Your task to perform on an android device: Go to notification settings Image 0: 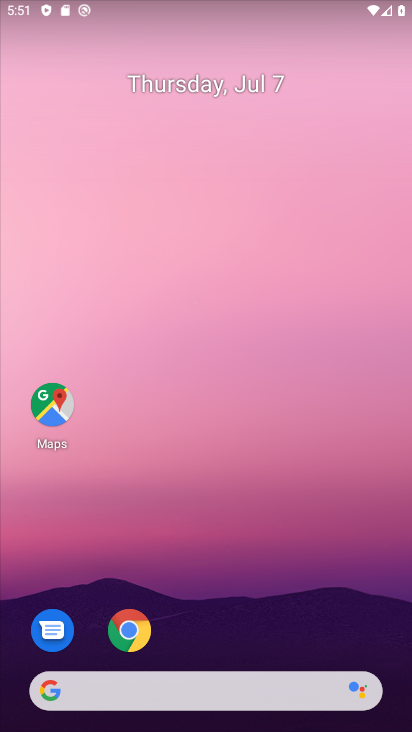
Step 0: click (411, 442)
Your task to perform on an android device: Go to notification settings Image 1: 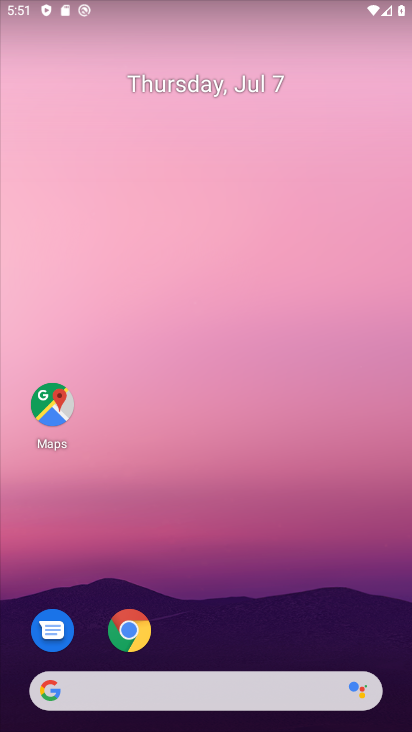
Step 1: drag from (213, 363) to (203, 21)
Your task to perform on an android device: Go to notification settings Image 2: 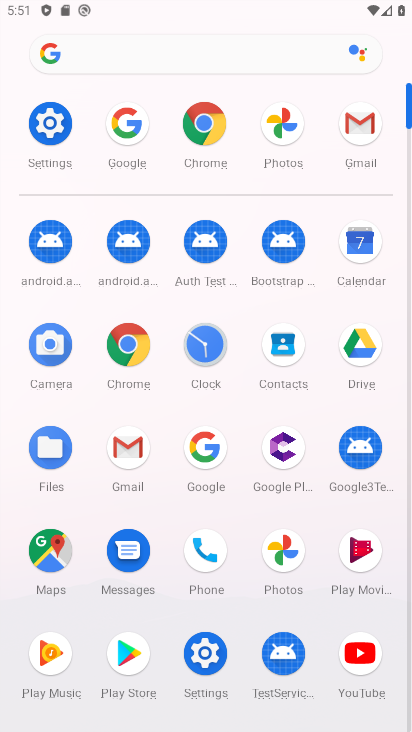
Step 2: click (48, 129)
Your task to perform on an android device: Go to notification settings Image 3: 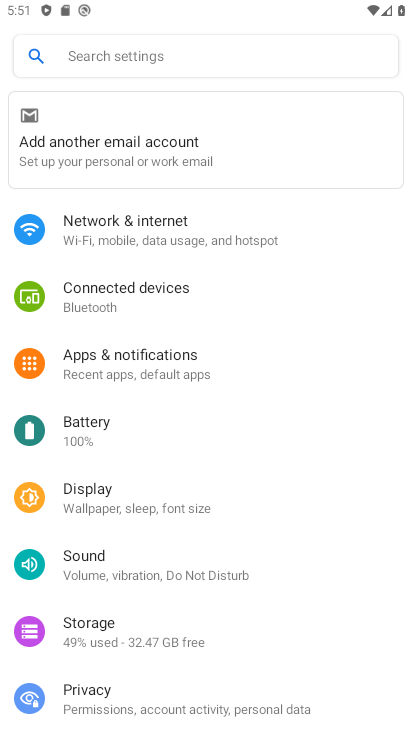
Step 3: click (142, 366)
Your task to perform on an android device: Go to notification settings Image 4: 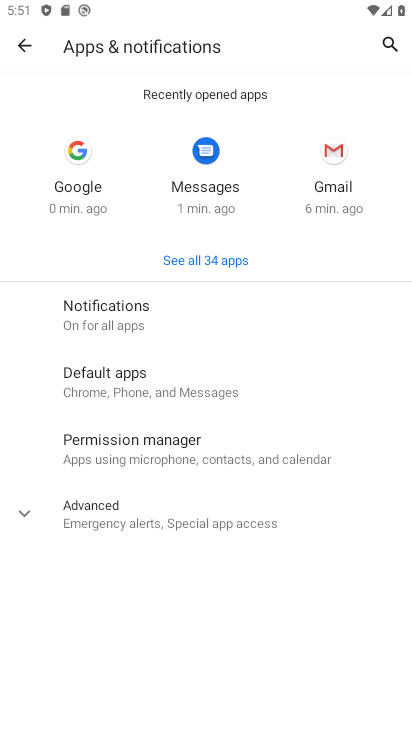
Step 4: click (104, 321)
Your task to perform on an android device: Go to notification settings Image 5: 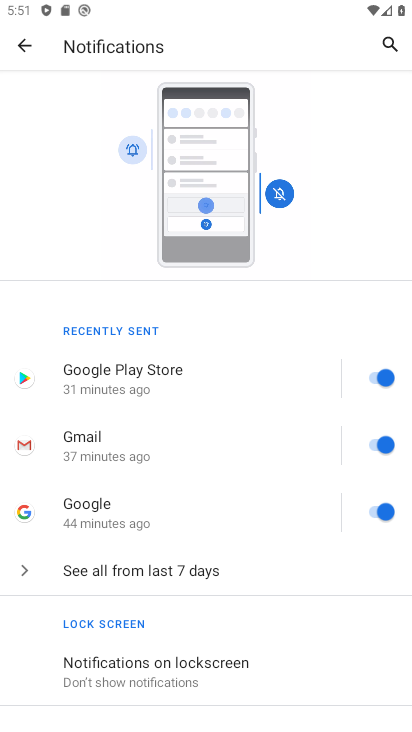
Step 5: task complete